Your task to perform on an android device: add a contact in the contacts app Image 0: 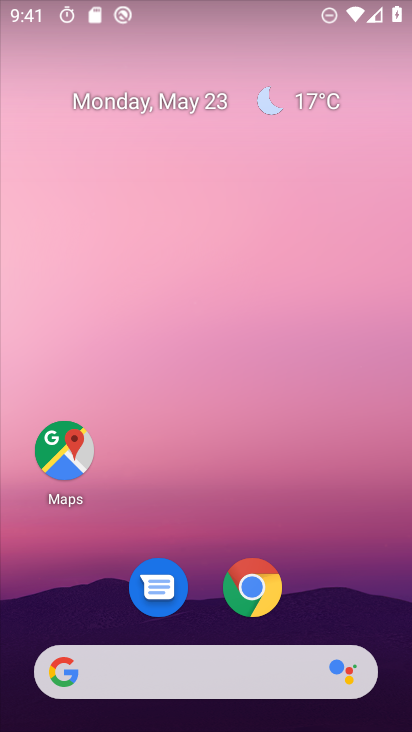
Step 0: drag from (202, 525) to (263, 71)
Your task to perform on an android device: add a contact in the contacts app Image 1: 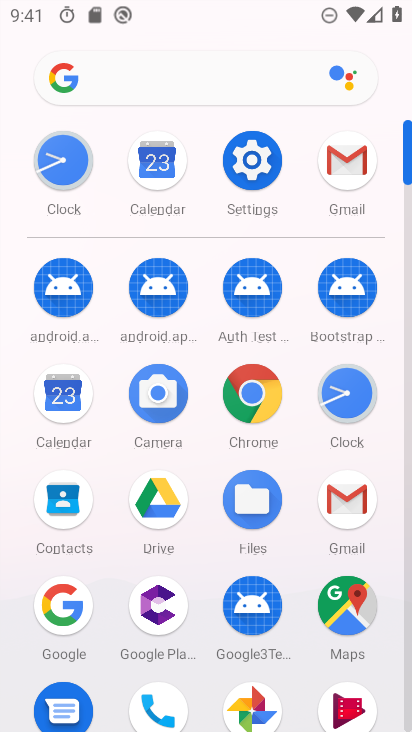
Step 1: click (67, 505)
Your task to perform on an android device: add a contact in the contacts app Image 2: 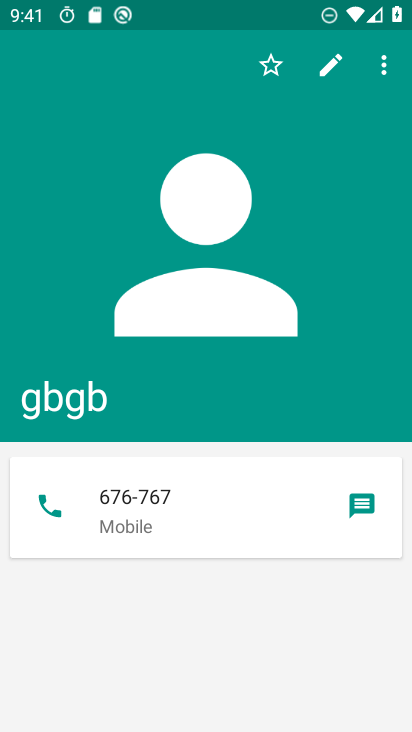
Step 2: press back button
Your task to perform on an android device: add a contact in the contacts app Image 3: 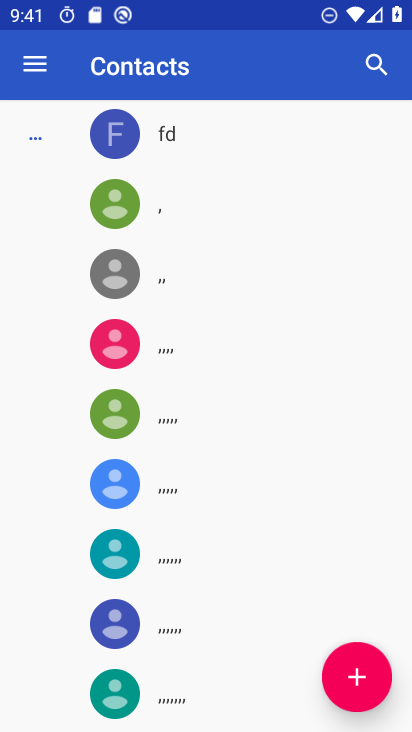
Step 3: click (337, 676)
Your task to perform on an android device: add a contact in the contacts app Image 4: 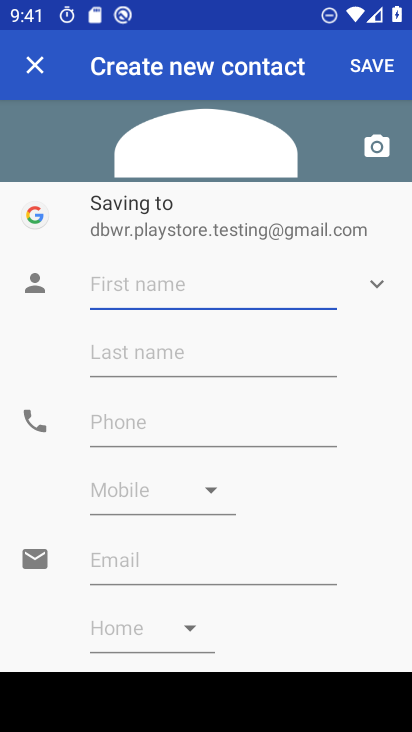
Step 4: click (118, 277)
Your task to perform on an android device: add a contact in the contacts app Image 5: 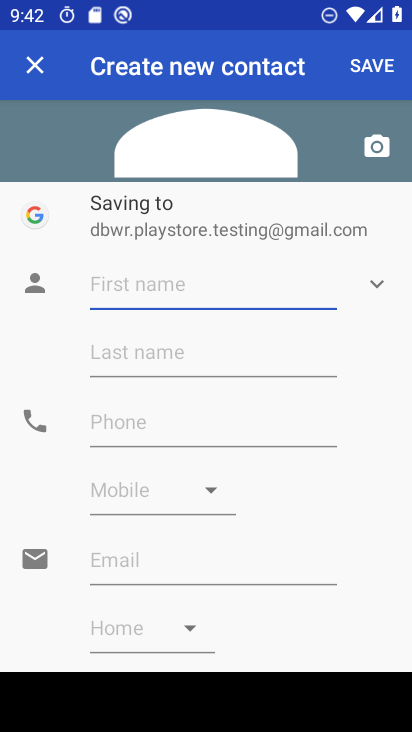
Step 5: type "htht"
Your task to perform on an android device: add a contact in the contacts app Image 6: 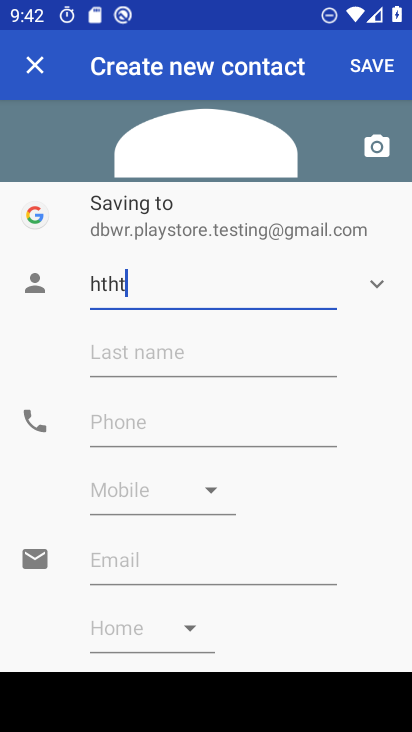
Step 6: click (98, 420)
Your task to perform on an android device: add a contact in the contacts app Image 7: 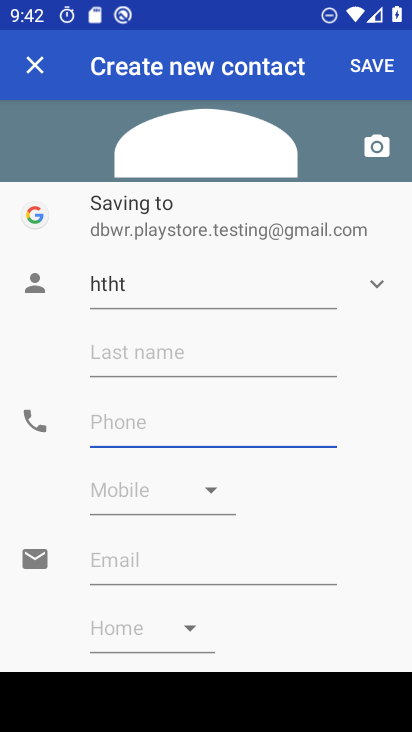
Step 7: type "67676"
Your task to perform on an android device: add a contact in the contacts app Image 8: 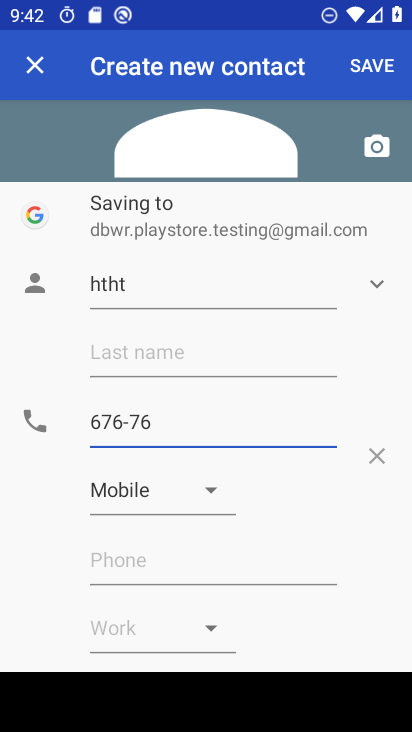
Step 8: click (369, 65)
Your task to perform on an android device: add a contact in the contacts app Image 9: 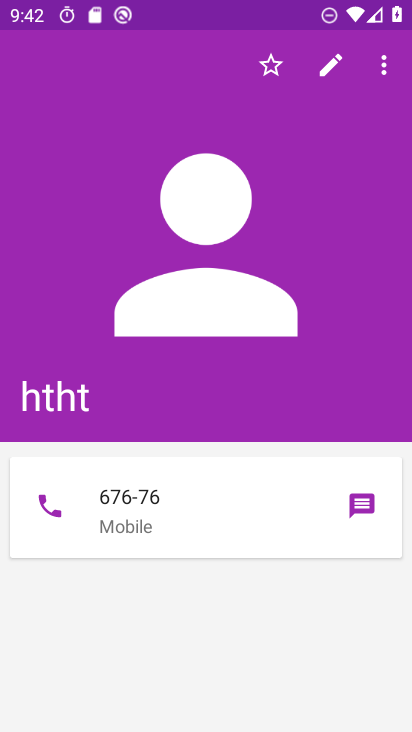
Step 9: task complete